Your task to perform on an android device: find which apps use the phone's location Image 0: 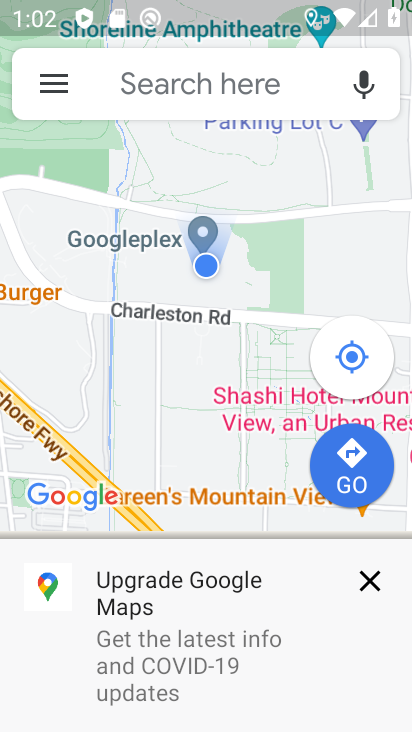
Step 0: press home button
Your task to perform on an android device: find which apps use the phone's location Image 1: 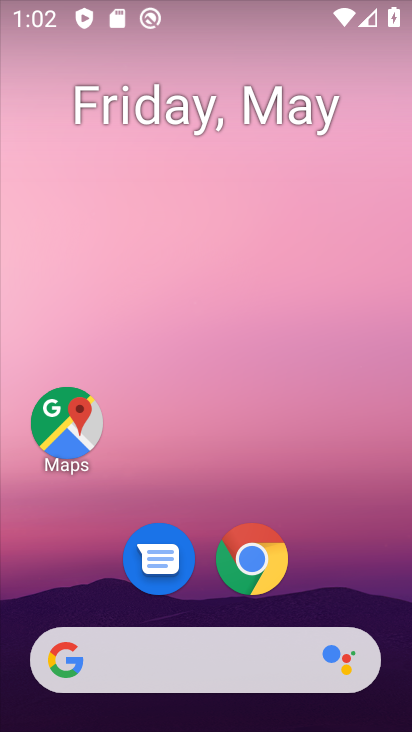
Step 1: drag from (370, 583) to (361, 215)
Your task to perform on an android device: find which apps use the phone's location Image 2: 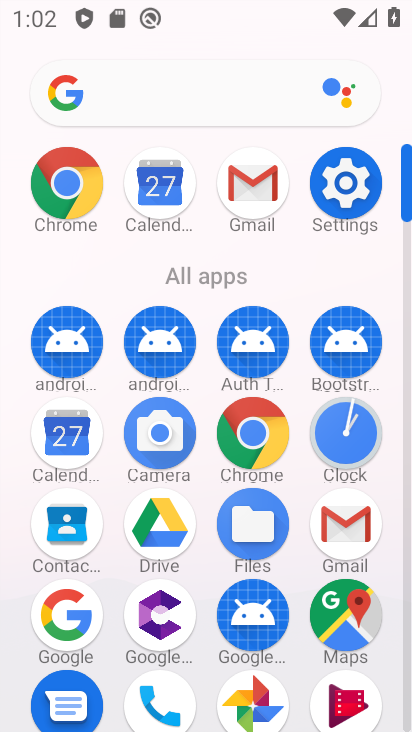
Step 2: click (357, 185)
Your task to perform on an android device: find which apps use the phone's location Image 3: 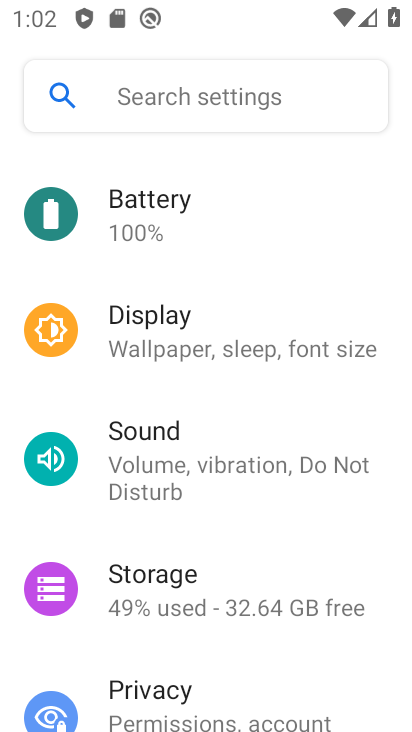
Step 3: drag from (289, 362) to (302, 622)
Your task to perform on an android device: find which apps use the phone's location Image 4: 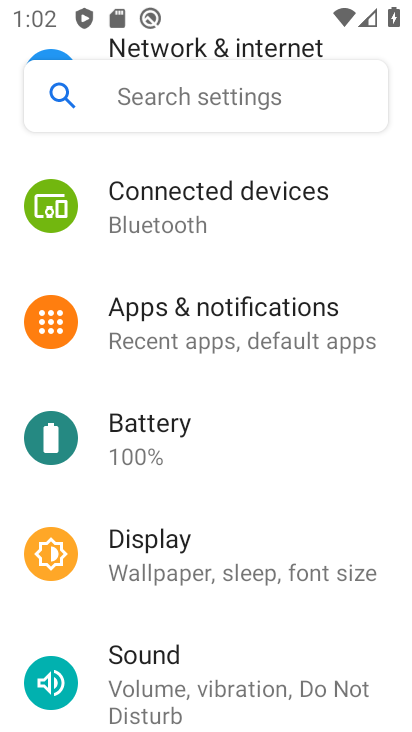
Step 4: drag from (292, 634) to (267, 152)
Your task to perform on an android device: find which apps use the phone's location Image 5: 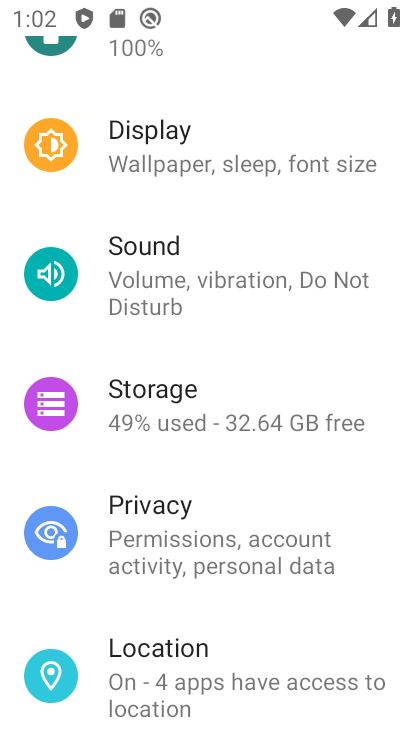
Step 5: click (244, 636)
Your task to perform on an android device: find which apps use the phone's location Image 6: 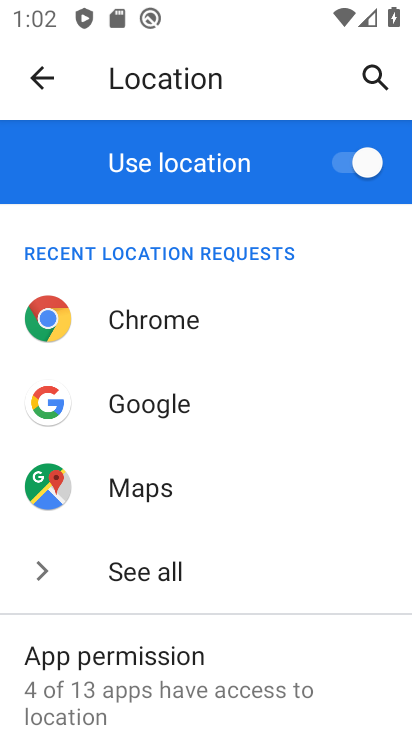
Step 6: task complete